Your task to perform on an android device: change the clock style Image 0: 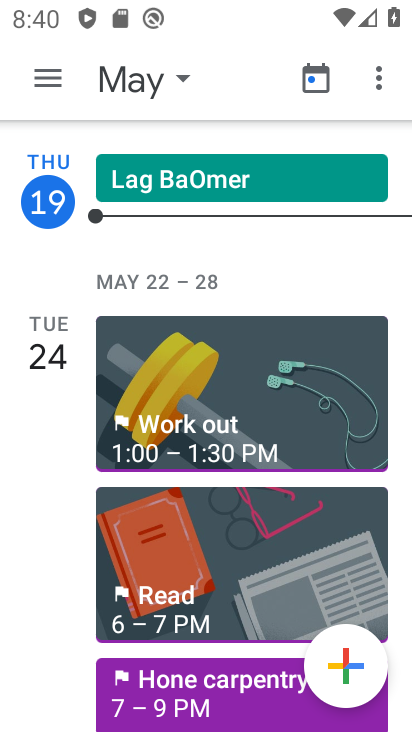
Step 0: press home button
Your task to perform on an android device: change the clock style Image 1: 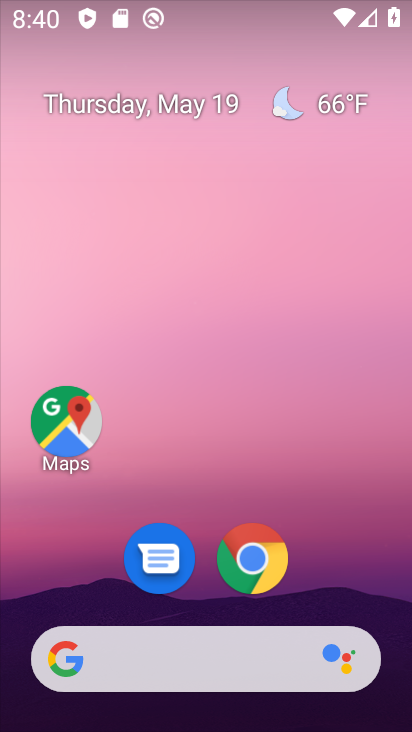
Step 1: drag from (205, 609) to (200, 223)
Your task to perform on an android device: change the clock style Image 2: 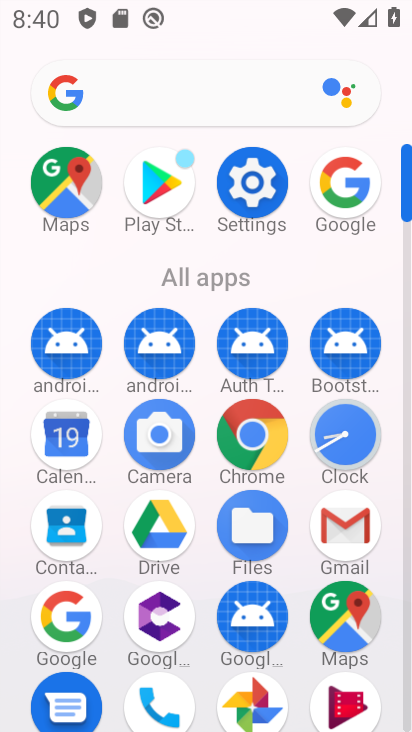
Step 2: click (334, 429)
Your task to perform on an android device: change the clock style Image 3: 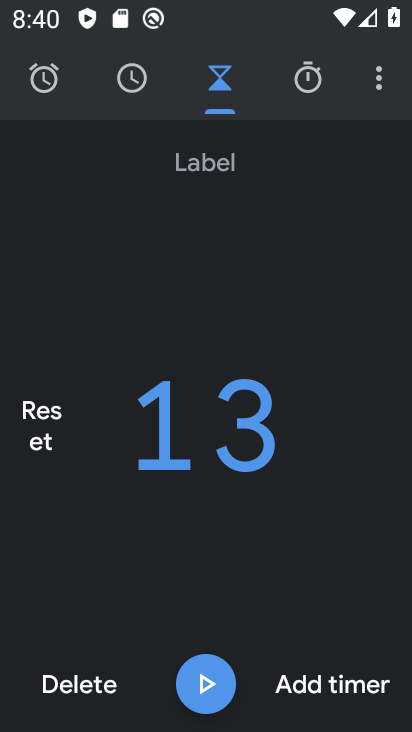
Step 3: click (376, 71)
Your task to perform on an android device: change the clock style Image 4: 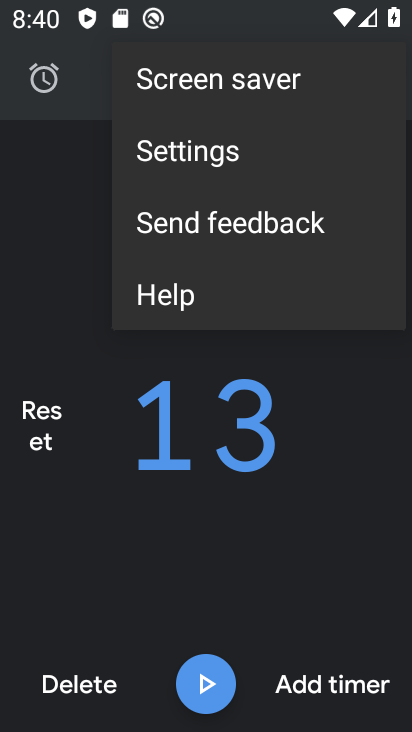
Step 4: click (265, 135)
Your task to perform on an android device: change the clock style Image 5: 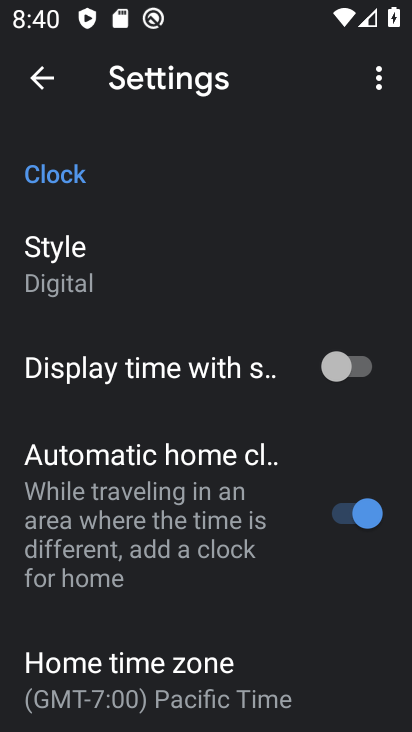
Step 5: click (104, 254)
Your task to perform on an android device: change the clock style Image 6: 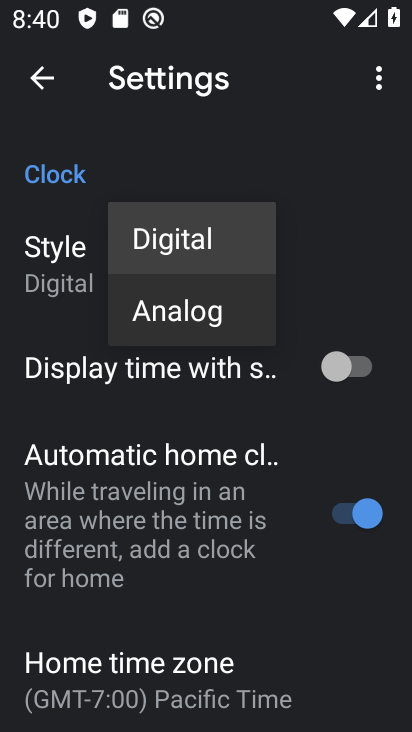
Step 6: click (143, 300)
Your task to perform on an android device: change the clock style Image 7: 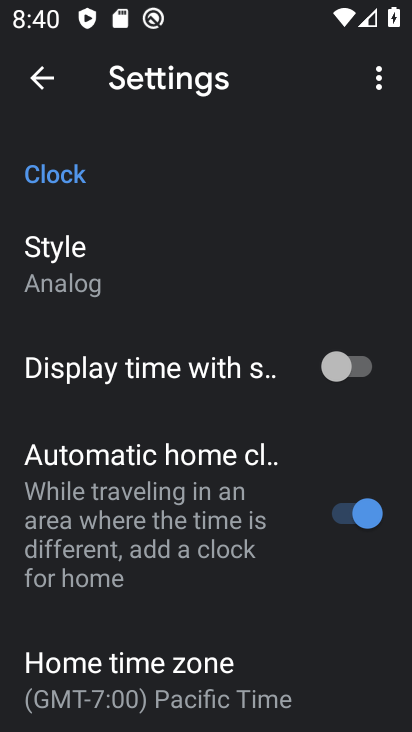
Step 7: task complete